Your task to perform on an android device: find photos in the google photos app Image 0: 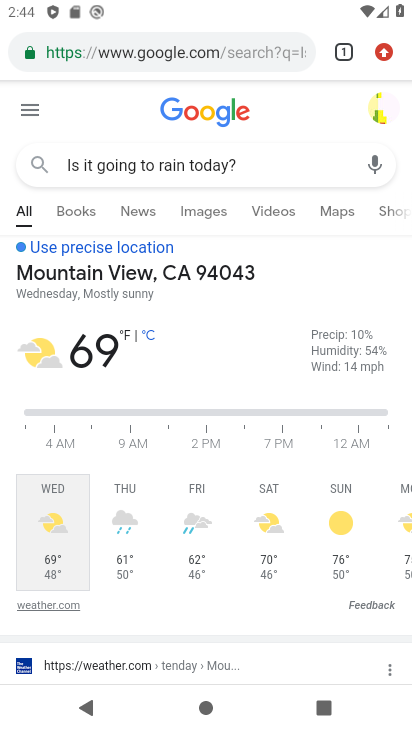
Step 0: press home button
Your task to perform on an android device: find photos in the google photos app Image 1: 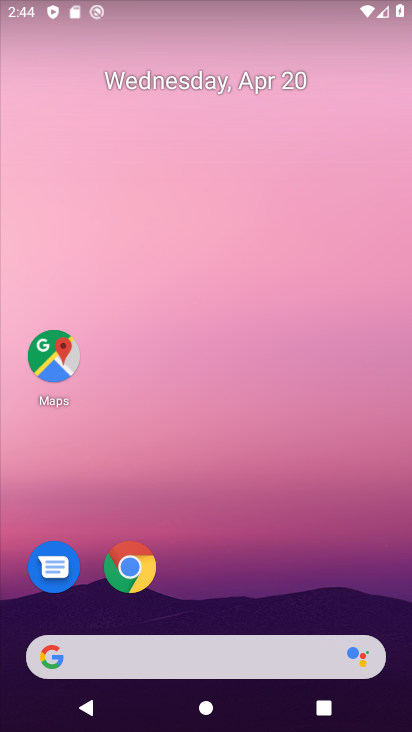
Step 1: drag from (340, 499) to (219, 21)
Your task to perform on an android device: find photos in the google photos app Image 2: 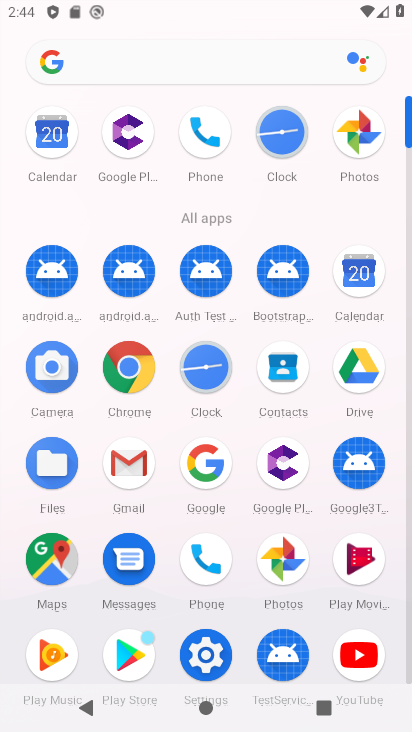
Step 2: click (288, 566)
Your task to perform on an android device: find photos in the google photos app Image 3: 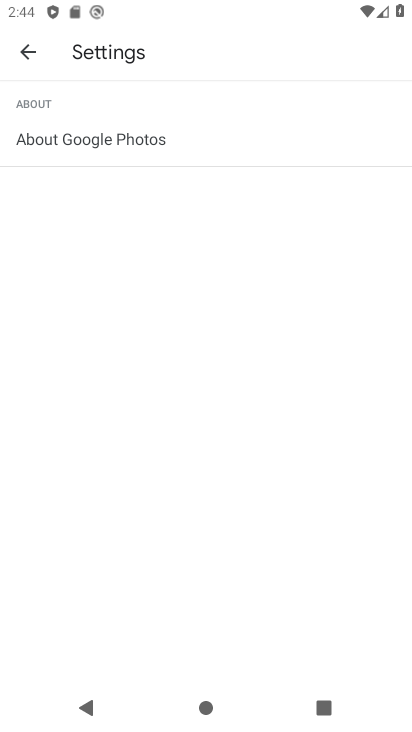
Step 3: click (24, 46)
Your task to perform on an android device: find photos in the google photos app Image 4: 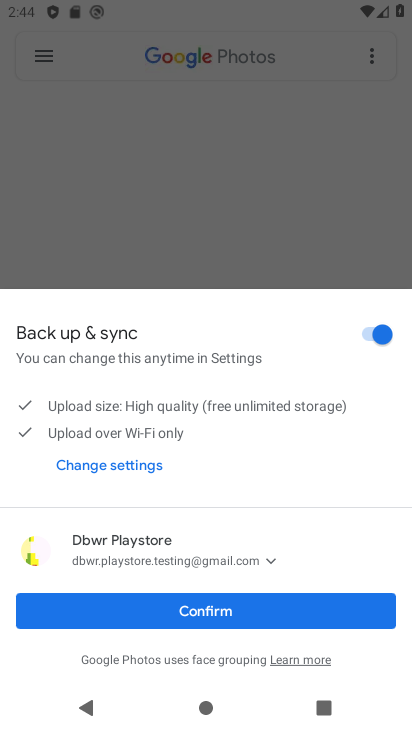
Step 4: click (223, 618)
Your task to perform on an android device: find photos in the google photos app Image 5: 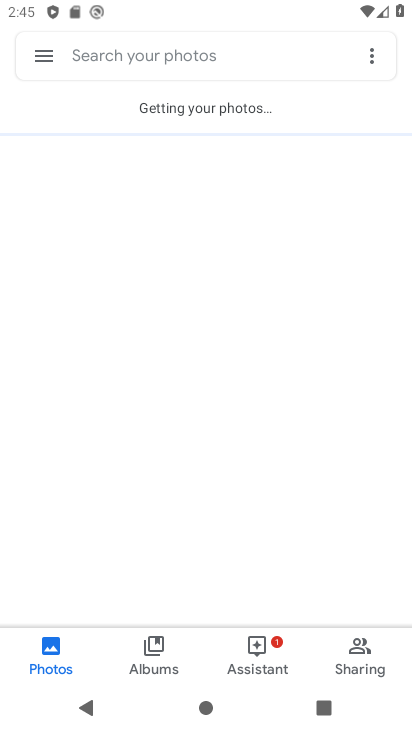
Step 5: task complete